Your task to perform on an android device: Show me recent news Image 0: 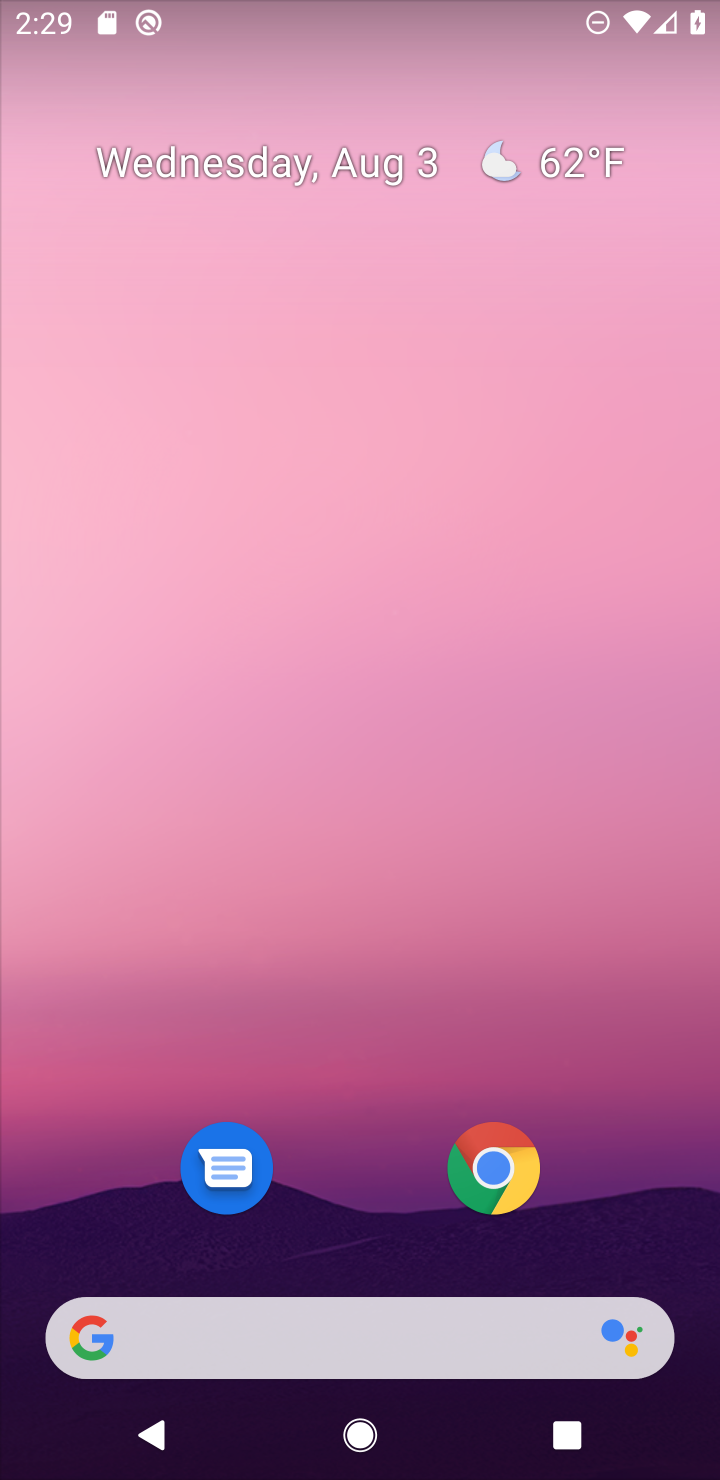
Step 0: drag from (169, 765) to (657, 799)
Your task to perform on an android device: Show me recent news Image 1: 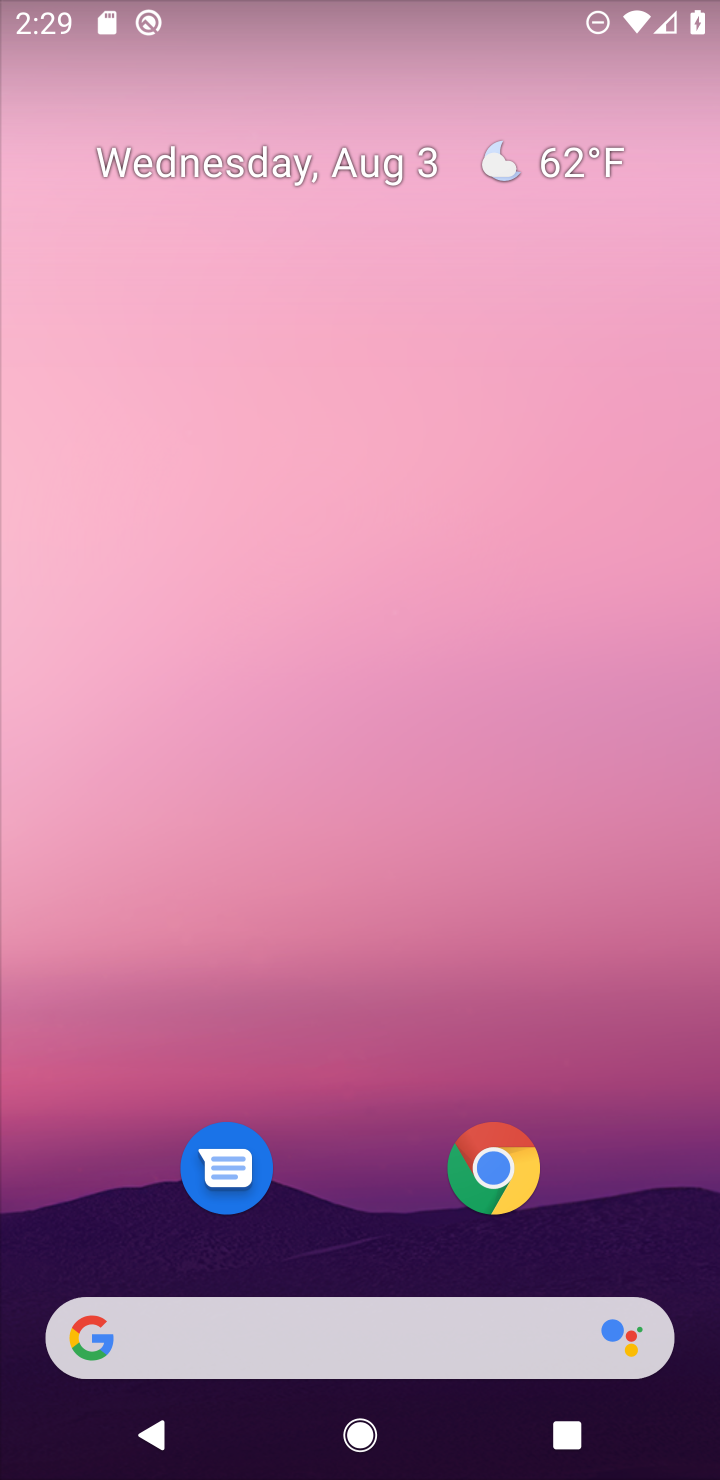
Step 1: drag from (16, 720) to (665, 847)
Your task to perform on an android device: Show me recent news Image 2: 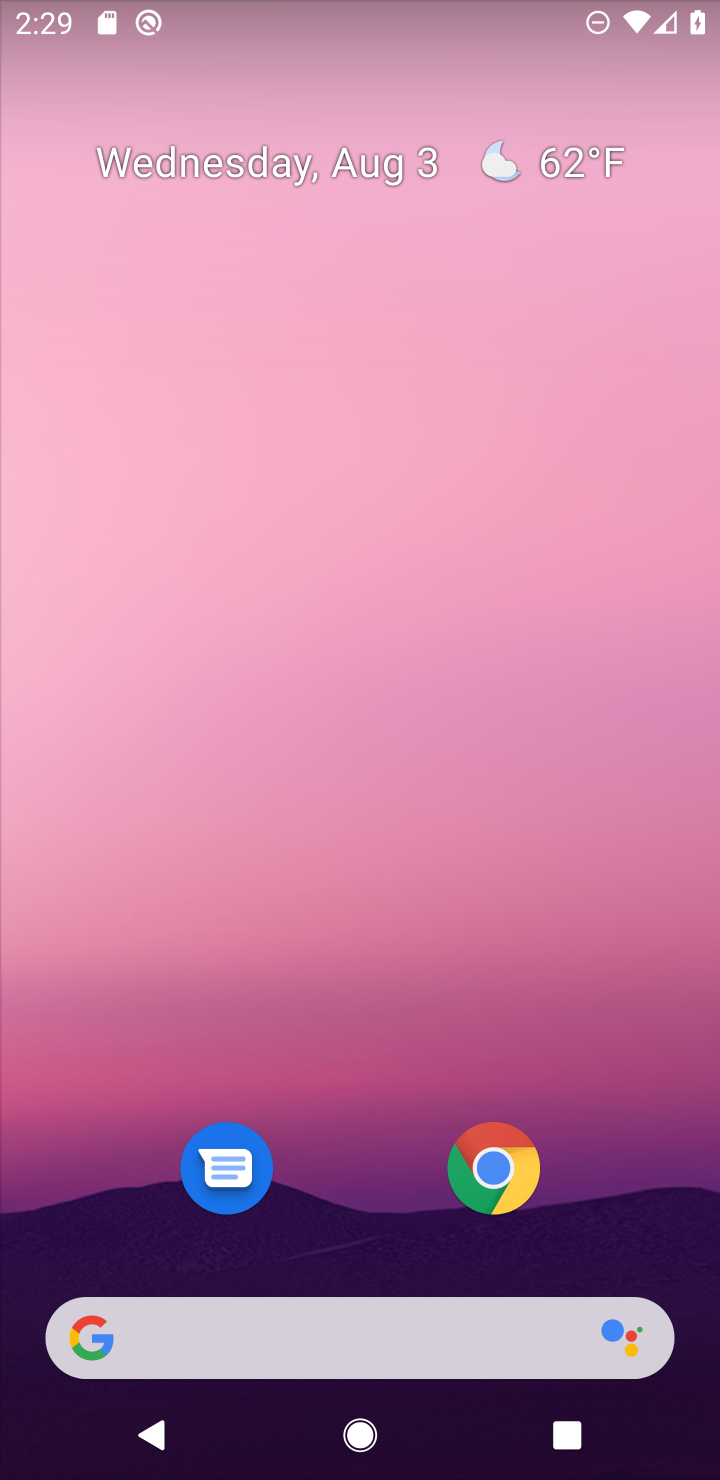
Step 2: drag from (6, 734) to (621, 675)
Your task to perform on an android device: Show me recent news Image 3: 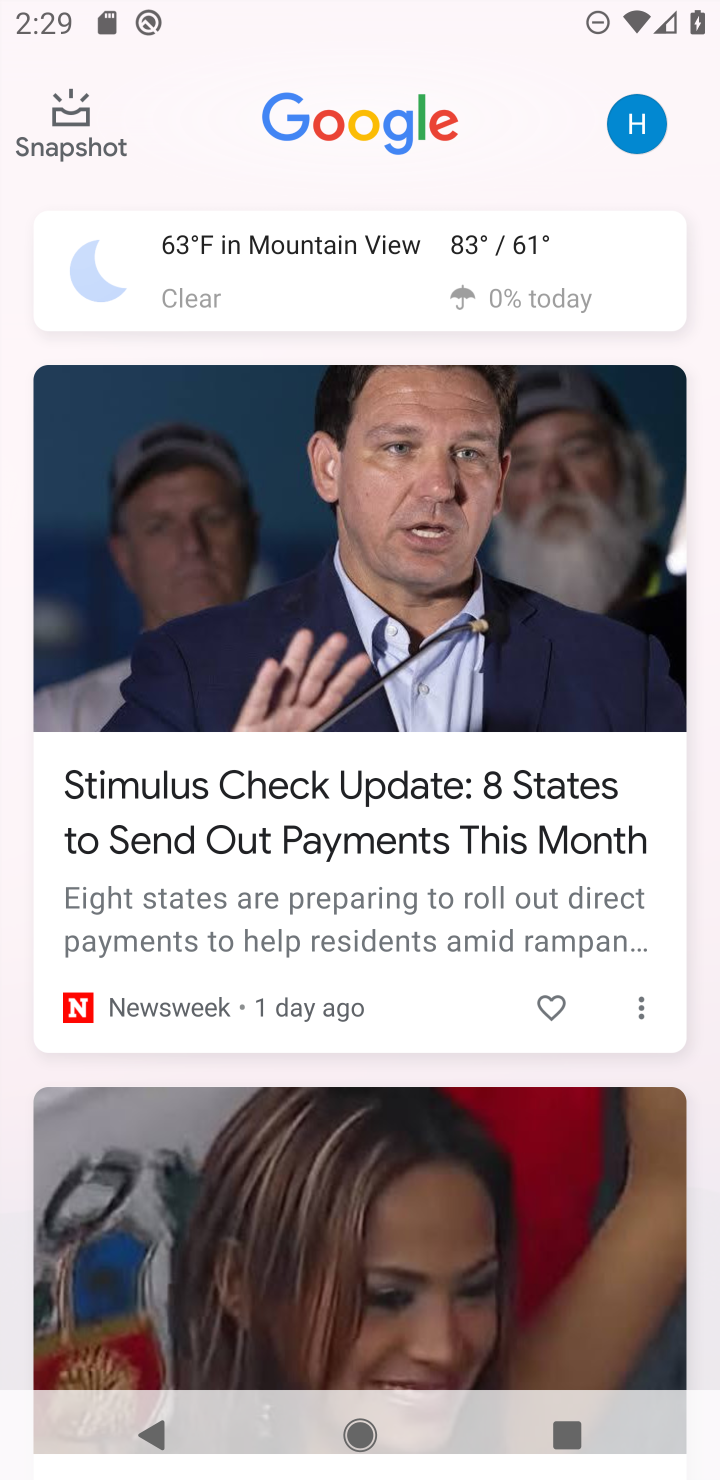
Step 3: drag from (361, 796) to (408, 327)
Your task to perform on an android device: Show me recent news Image 4: 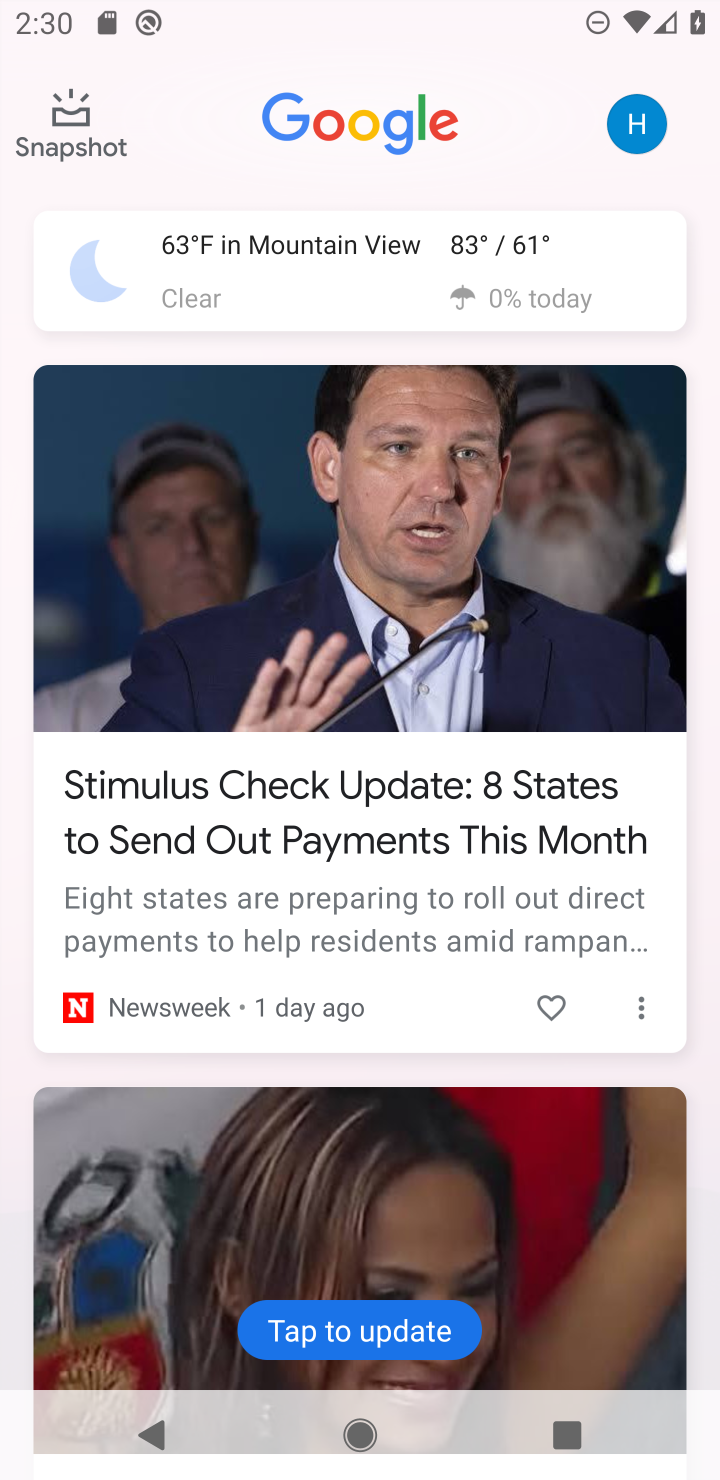
Step 4: click (367, 1333)
Your task to perform on an android device: Show me recent news Image 5: 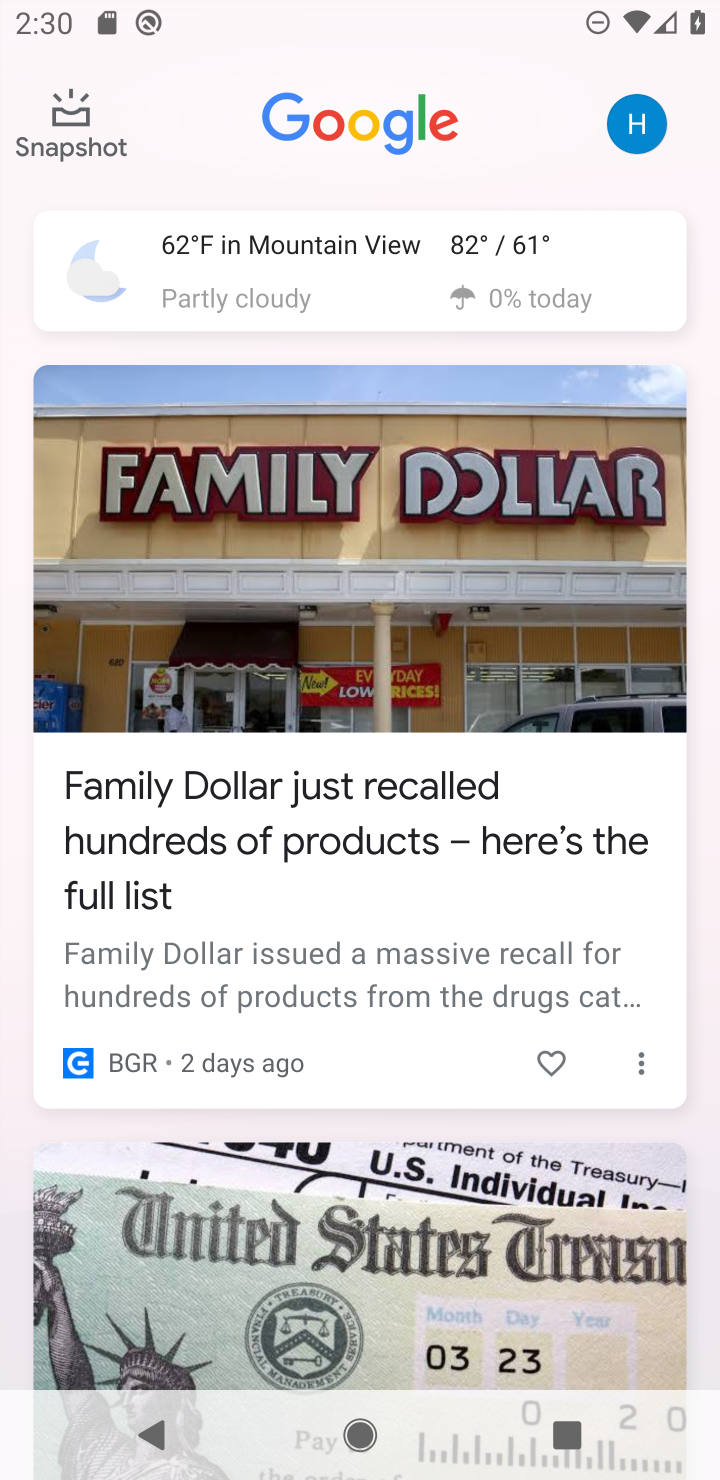
Step 5: task complete